Your task to perform on an android device: Go to accessibility settings Image 0: 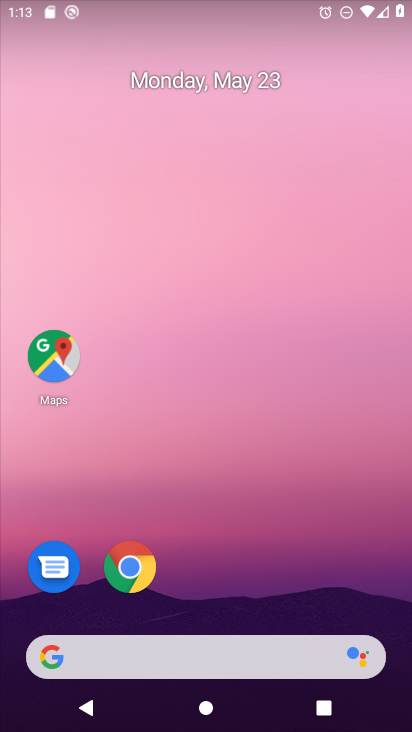
Step 0: drag from (200, 623) to (211, 227)
Your task to perform on an android device: Go to accessibility settings Image 1: 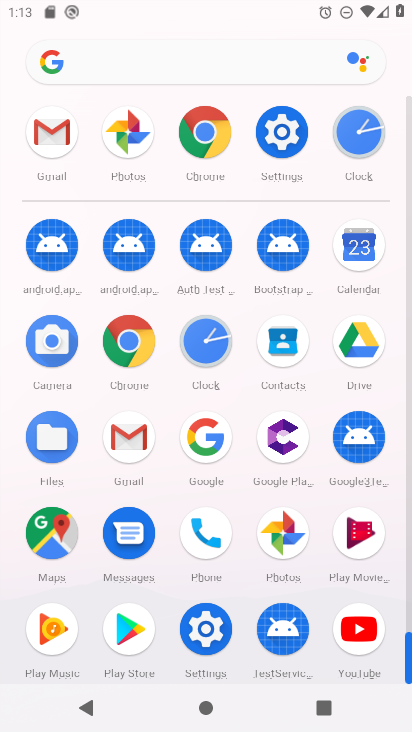
Step 1: click (293, 157)
Your task to perform on an android device: Go to accessibility settings Image 2: 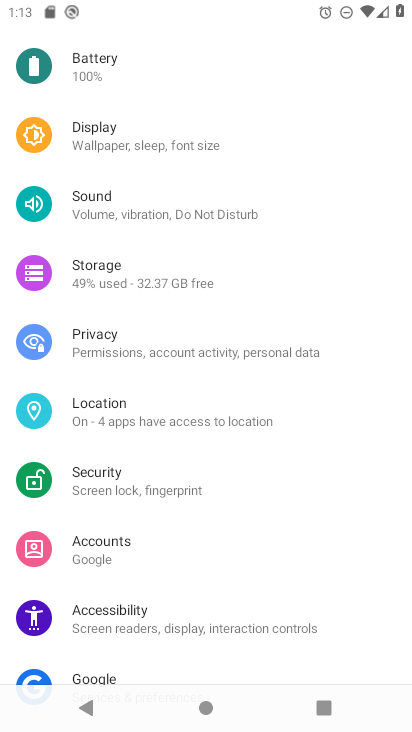
Step 2: click (124, 646)
Your task to perform on an android device: Go to accessibility settings Image 3: 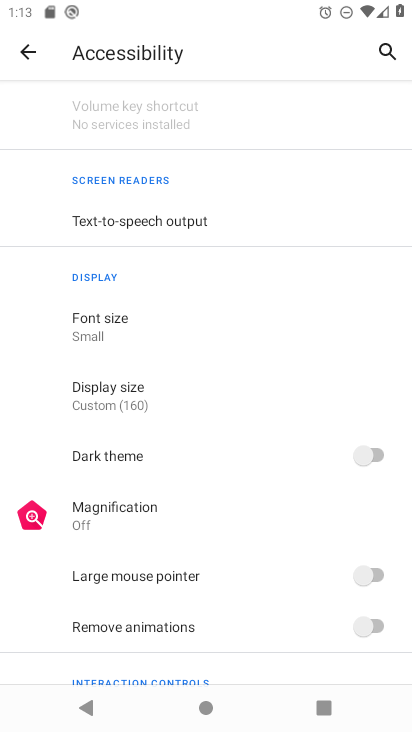
Step 3: task complete